Your task to perform on an android device: find photos in the google photos app Image 0: 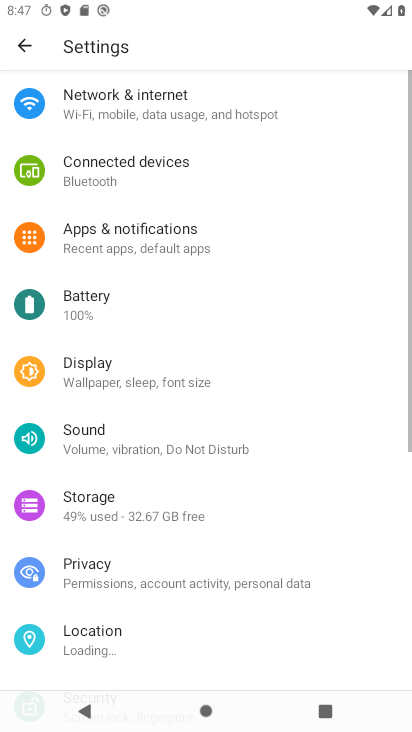
Step 0: drag from (292, 633) to (274, 57)
Your task to perform on an android device: find photos in the google photos app Image 1: 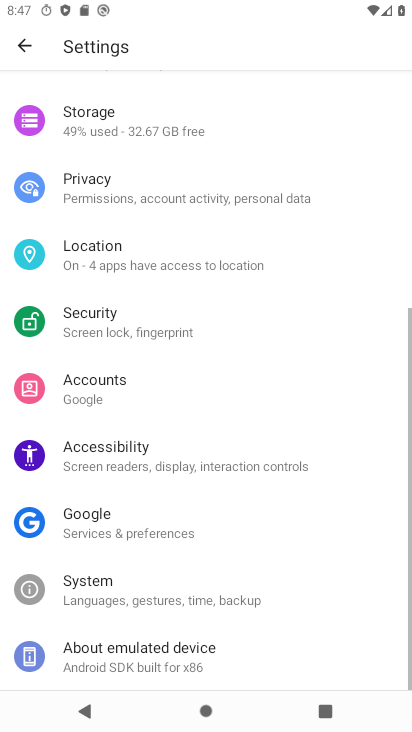
Step 1: click (12, 37)
Your task to perform on an android device: find photos in the google photos app Image 2: 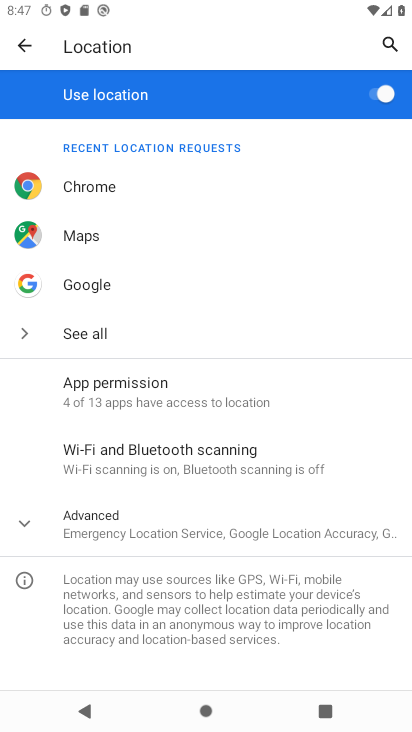
Step 2: click (28, 54)
Your task to perform on an android device: find photos in the google photos app Image 3: 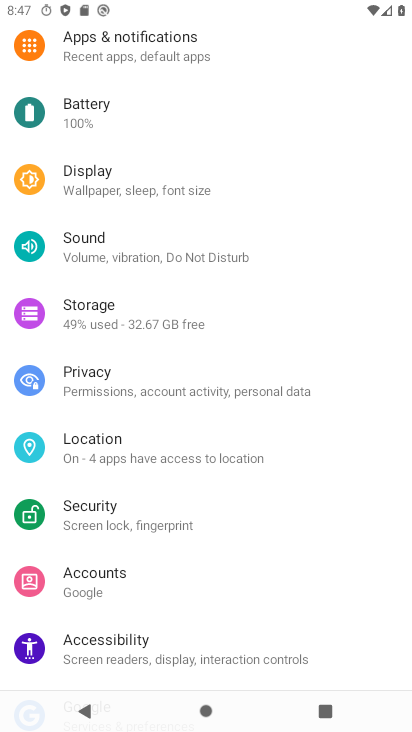
Step 3: press back button
Your task to perform on an android device: find photos in the google photos app Image 4: 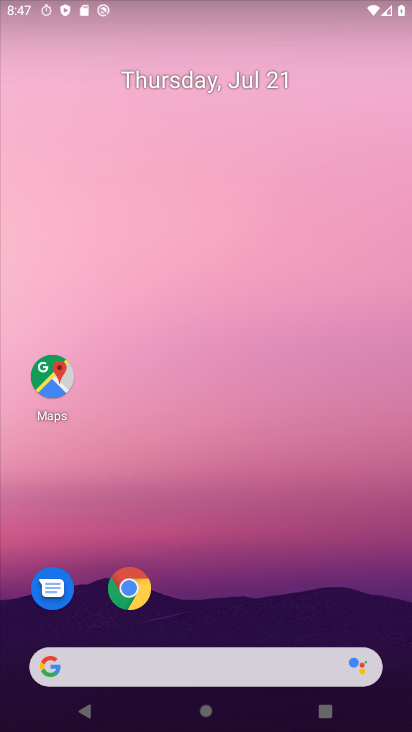
Step 4: drag from (244, 563) to (184, 131)
Your task to perform on an android device: find photos in the google photos app Image 5: 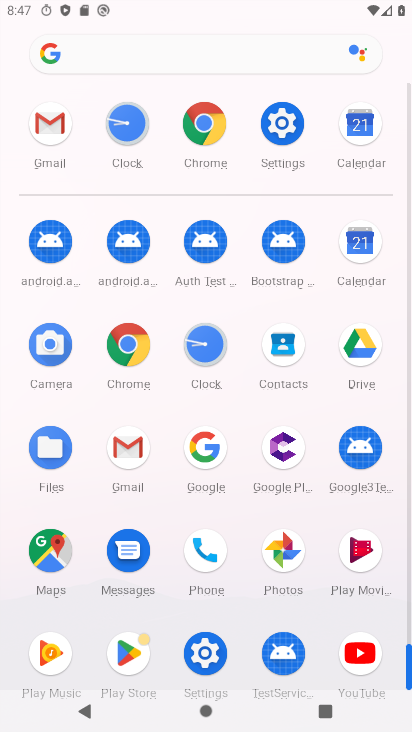
Step 5: click (282, 543)
Your task to perform on an android device: find photos in the google photos app Image 6: 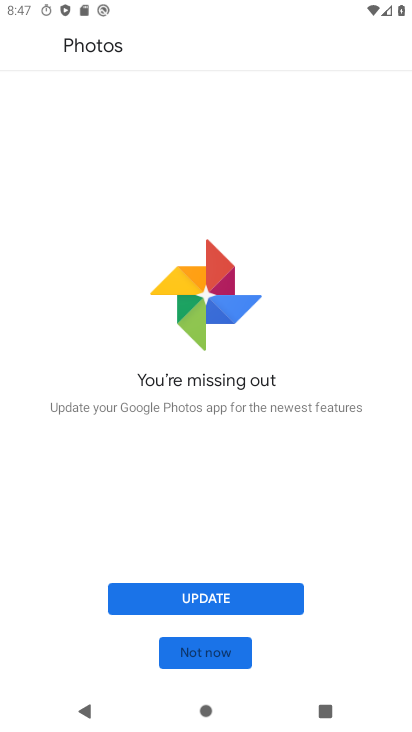
Step 6: click (202, 660)
Your task to perform on an android device: find photos in the google photos app Image 7: 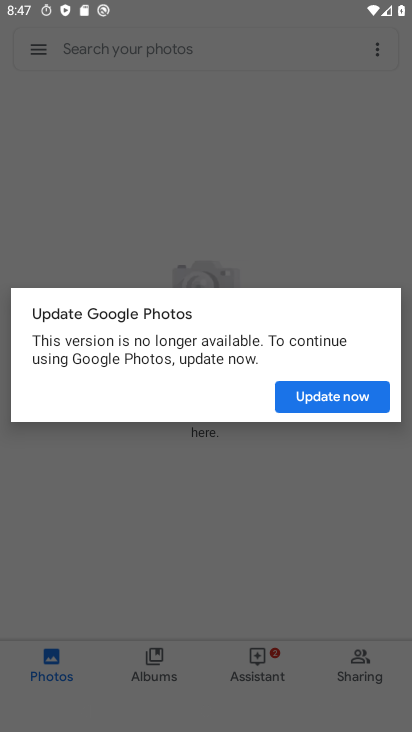
Step 7: click (331, 402)
Your task to perform on an android device: find photos in the google photos app Image 8: 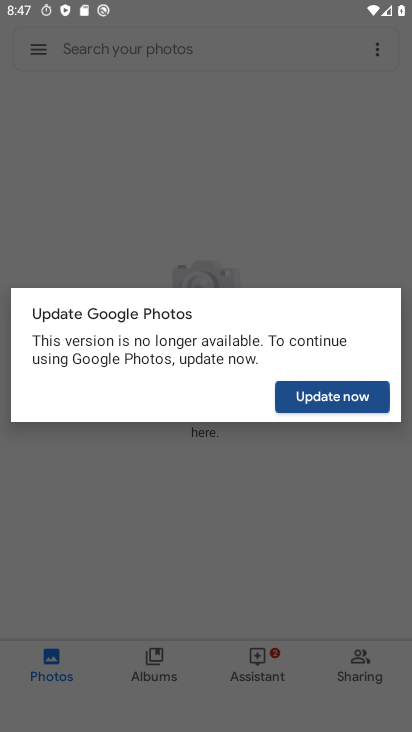
Step 8: click (330, 403)
Your task to perform on an android device: find photos in the google photos app Image 9: 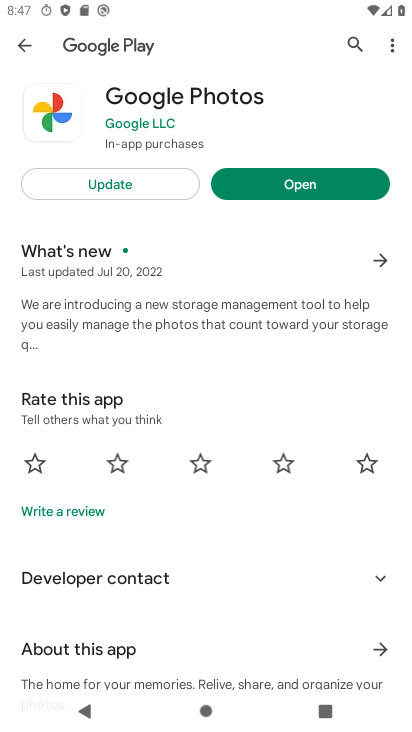
Step 9: click (127, 187)
Your task to perform on an android device: find photos in the google photos app Image 10: 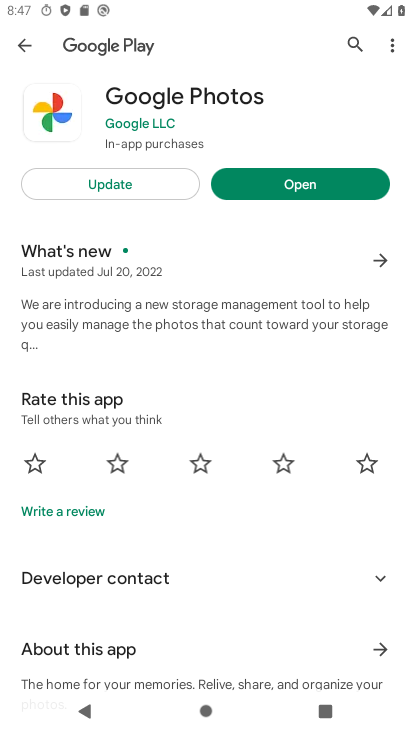
Step 10: click (127, 187)
Your task to perform on an android device: find photos in the google photos app Image 11: 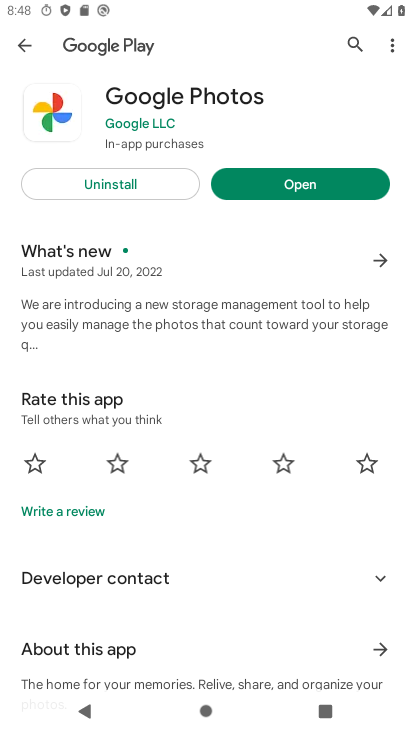
Step 11: click (298, 187)
Your task to perform on an android device: find photos in the google photos app Image 12: 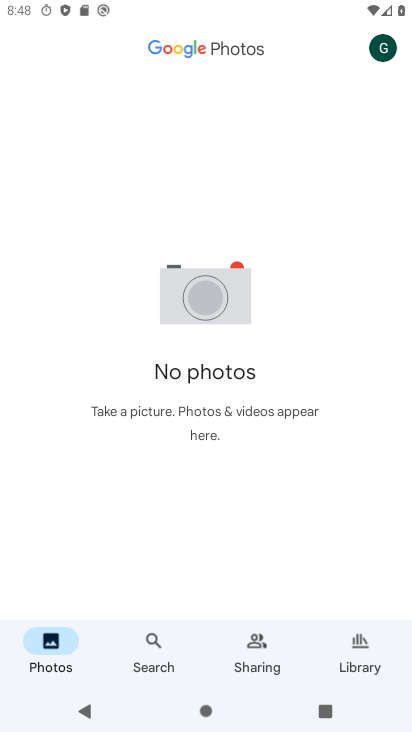
Step 12: task complete